Your task to perform on an android device: turn off location Image 0: 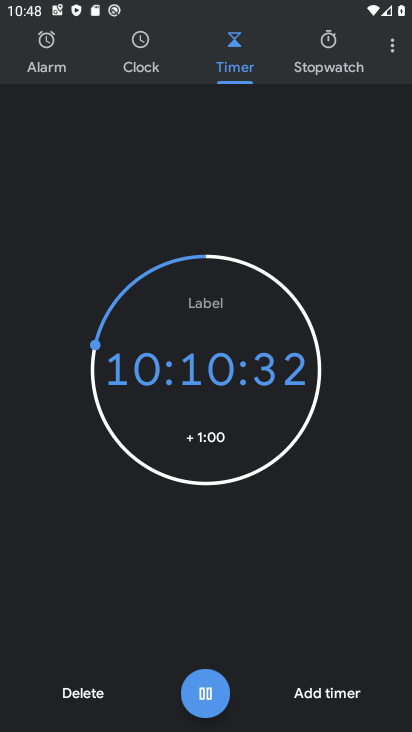
Step 0: press home button
Your task to perform on an android device: turn off location Image 1: 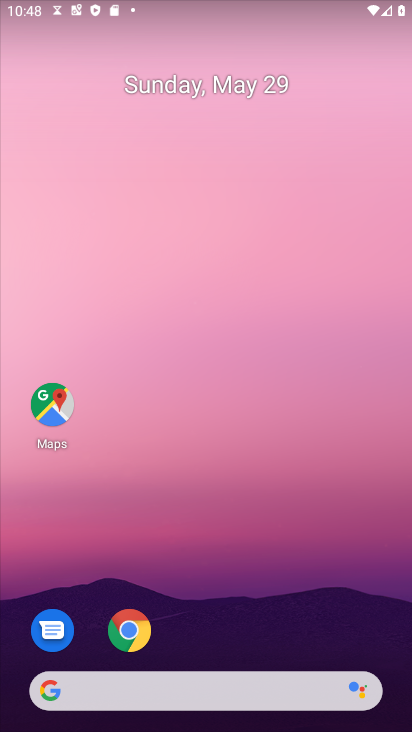
Step 1: drag from (233, 611) to (244, 32)
Your task to perform on an android device: turn off location Image 2: 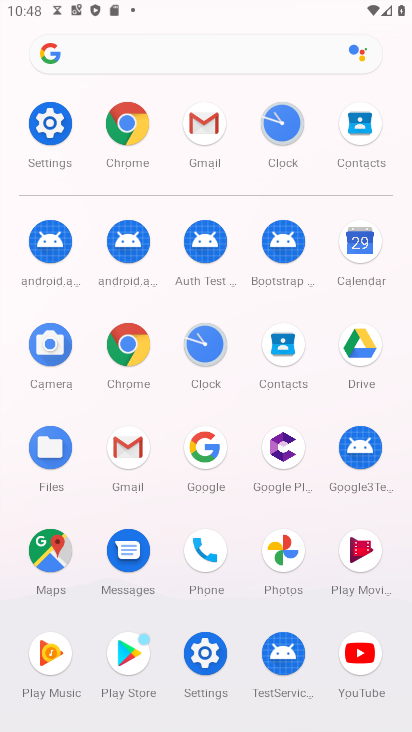
Step 2: click (47, 136)
Your task to perform on an android device: turn off location Image 3: 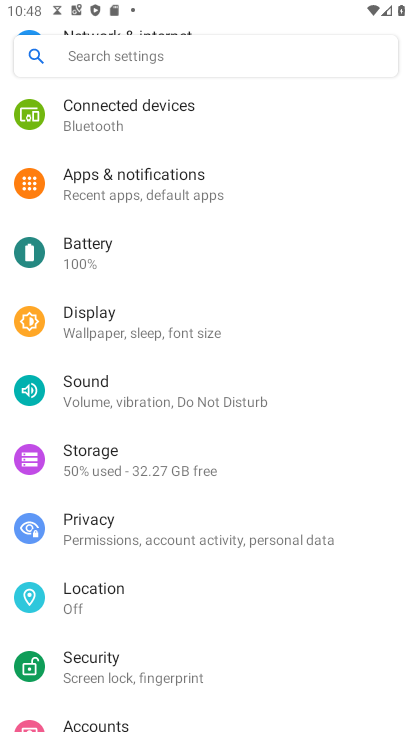
Step 3: click (101, 597)
Your task to perform on an android device: turn off location Image 4: 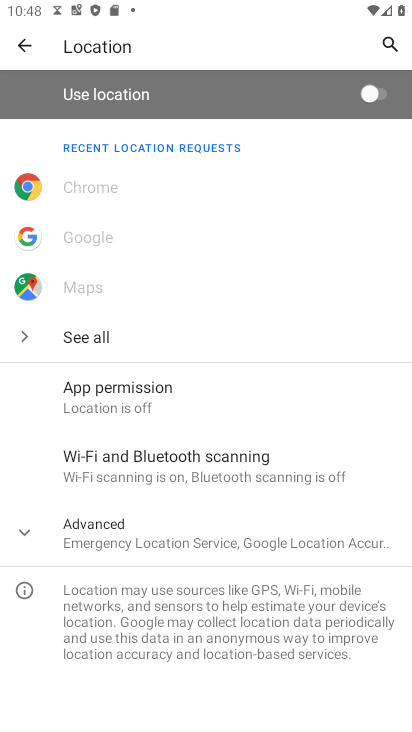
Step 4: task complete